Your task to perform on an android device: Go to location settings Image 0: 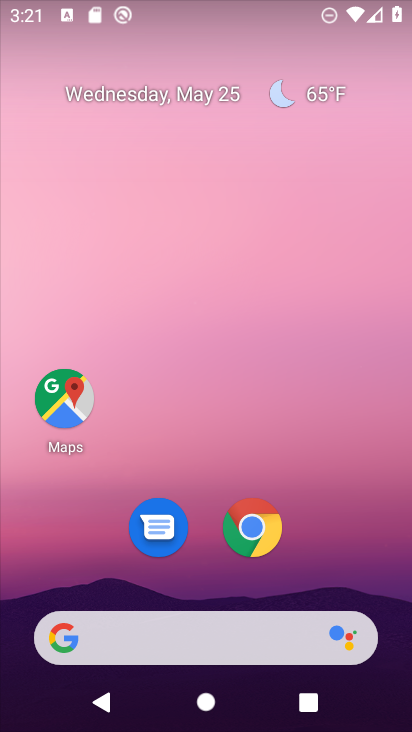
Step 0: drag from (345, 601) to (305, 10)
Your task to perform on an android device: Go to location settings Image 1: 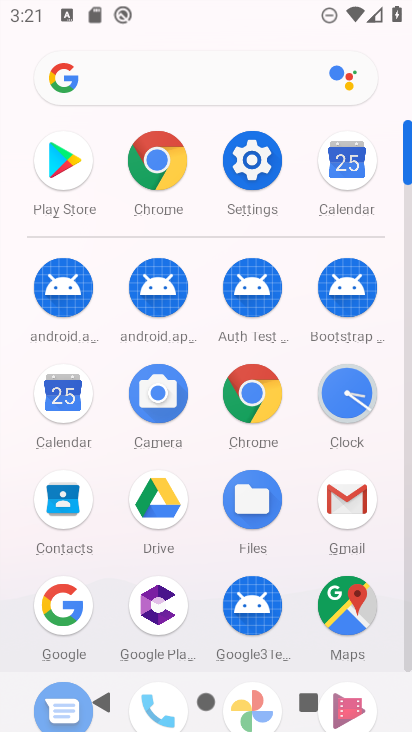
Step 1: click (242, 161)
Your task to perform on an android device: Go to location settings Image 2: 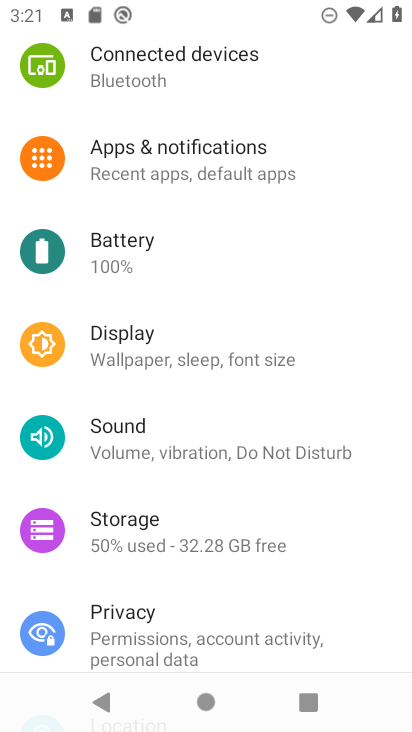
Step 2: drag from (228, 545) to (236, 120)
Your task to perform on an android device: Go to location settings Image 3: 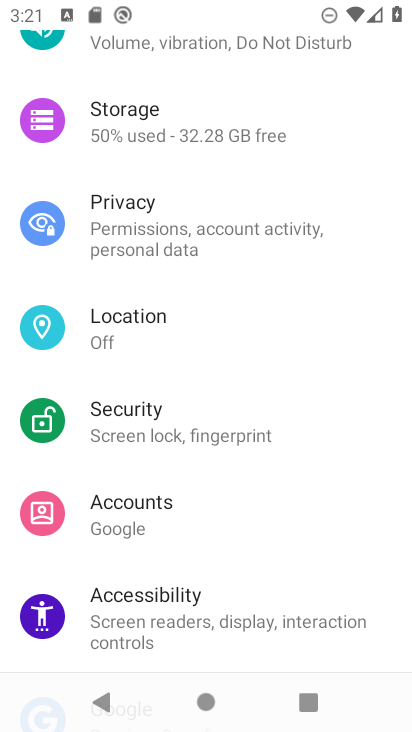
Step 3: click (145, 323)
Your task to perform on an android device: Go to location settings Image 4: 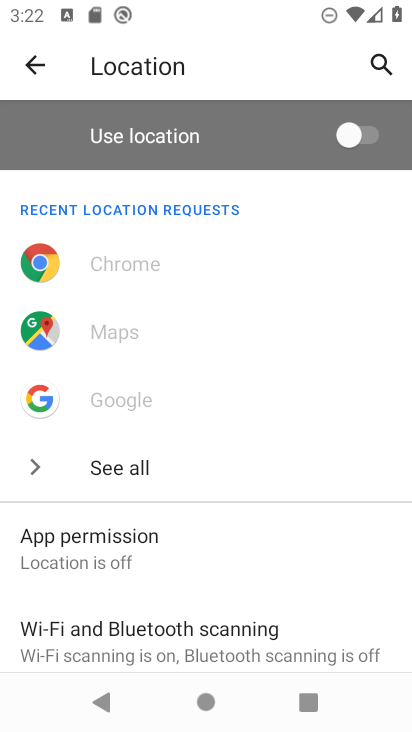
Step 4: task complete